Your task to perform on an android device: add a contact Image 0: 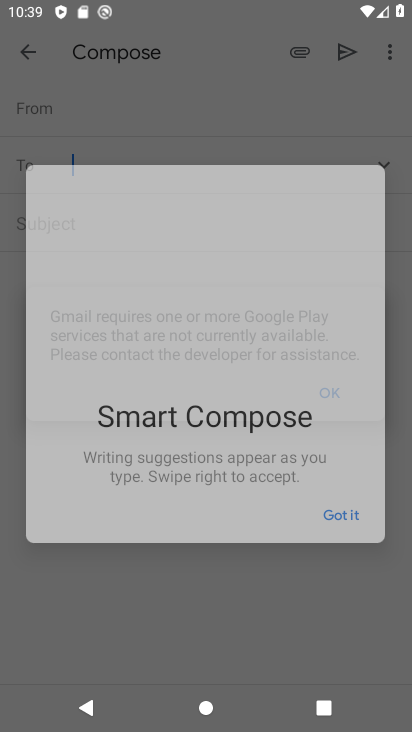
Step 0: press home button
Your task to perform on an android device: add a contact Image 1: 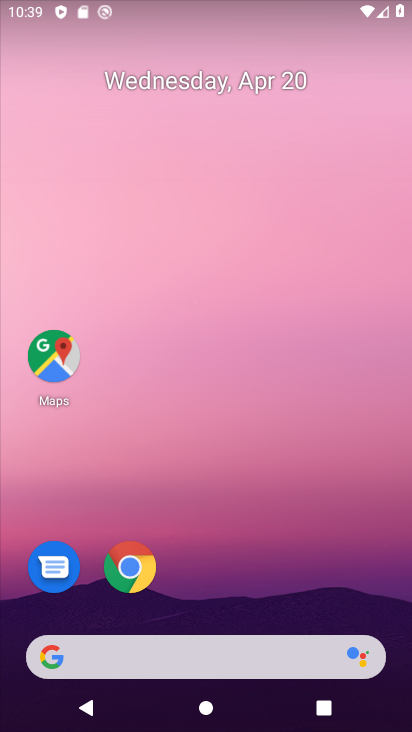
Step 1: drag from (190, 601) to (192, 85)
Your task to perform on an android device: add a contact Image 2: 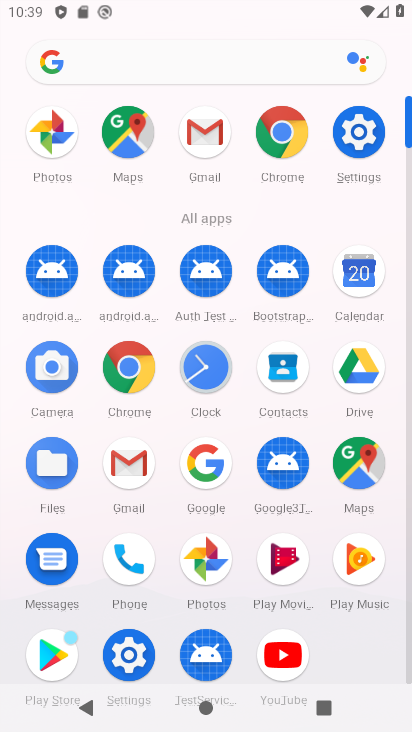
Step 2: click (125, 571)
Your task to perform on an android device: add a contact Image 3: 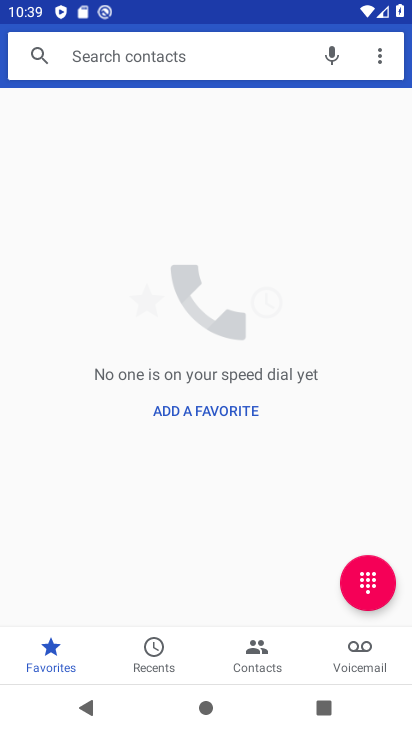
Step 3: click (262, 676)
Your task to perform on an android device: add a contact Image 4: 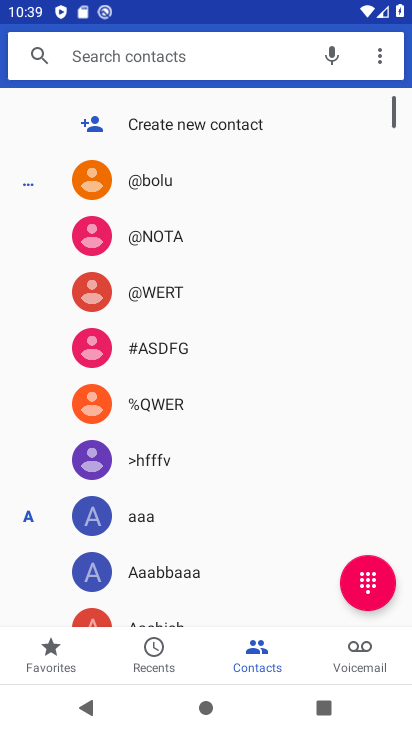
Step 4: click (158, 116)
Your task to perform on an android device: add a contact Image 5: 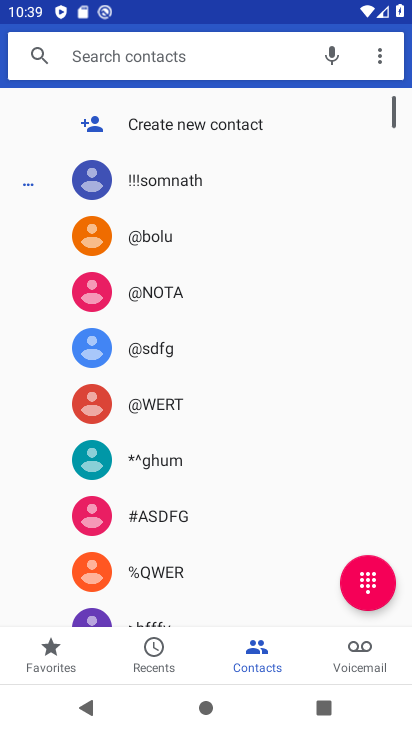
Step 5: click (160, 132)
Your task to perform on an android device: add a contact Image 6: 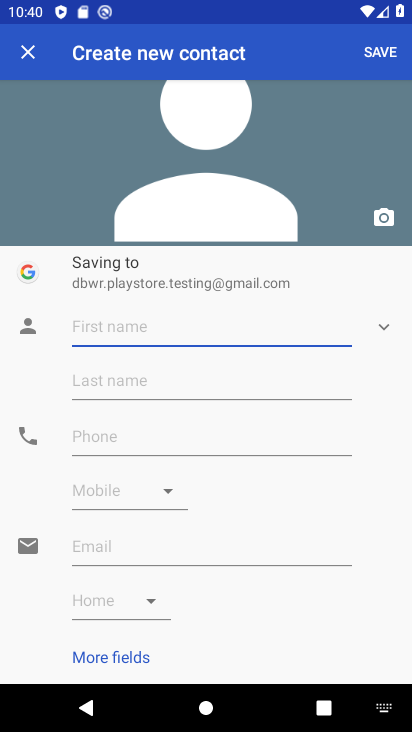
Step 6: type "ki"
Your task to perform on an android device: add a contact Image 7: 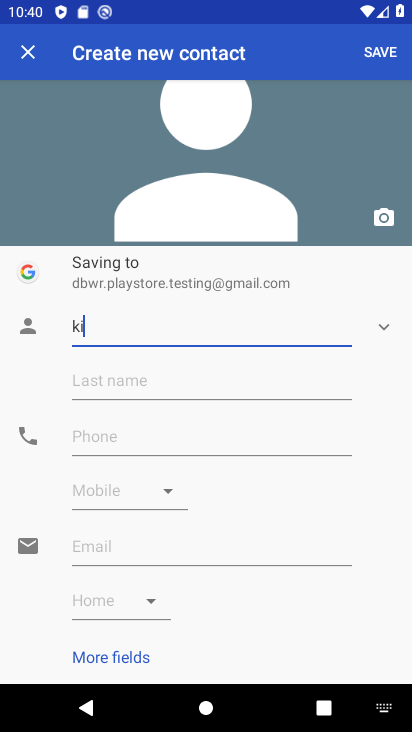
Step 7: click (126, 434)
Your task to perform on an android device: add a contact Image 8: 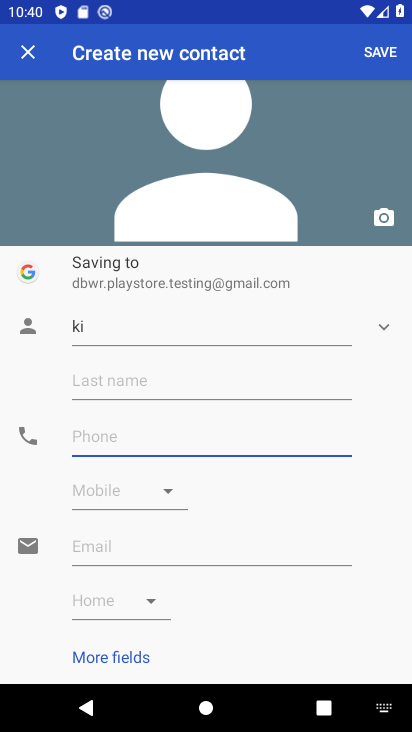
Step 8: type "89"
Your task to perform on an android device: add a contact Image 9: 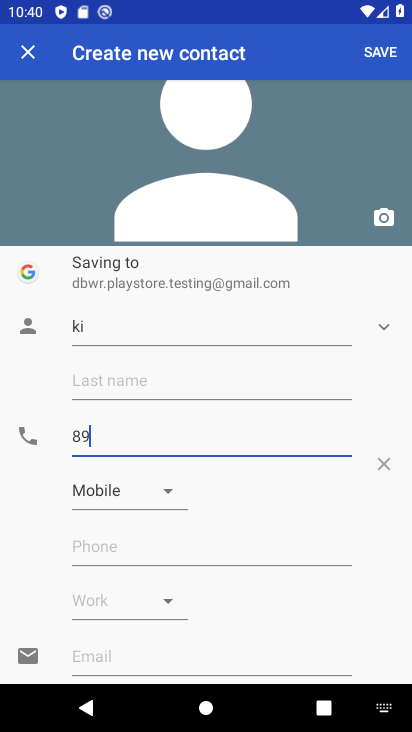
Step 9: click (378, 21)
Your task to perform on an android device: add a contact Image 10: 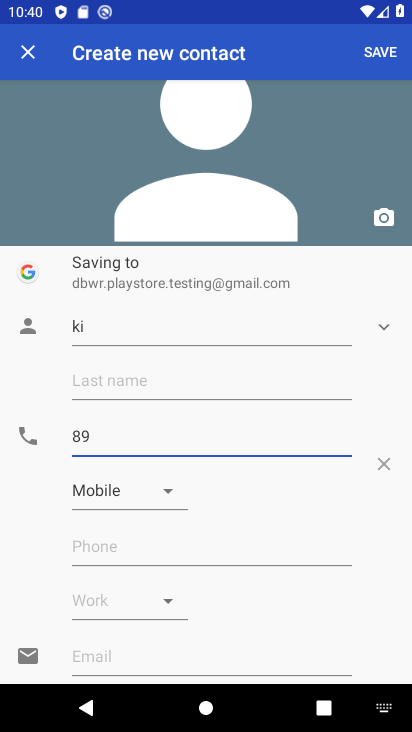
Step 10: click (392, 63)
Your task to perform on an android device: add a contact Image 11: 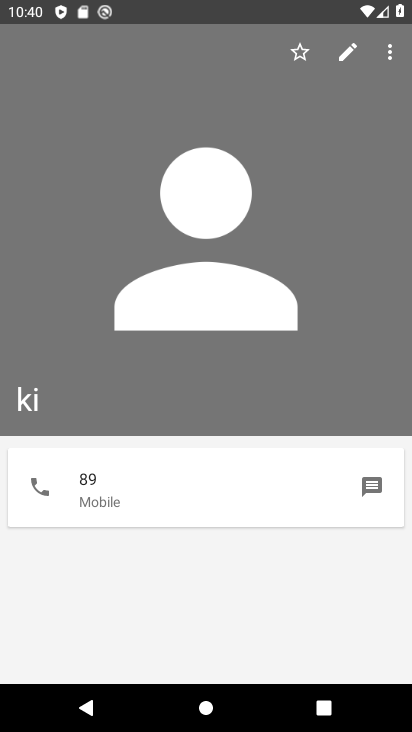
Step 11: task complete